Your task to perform on an android device: Open Amazon Image 0: 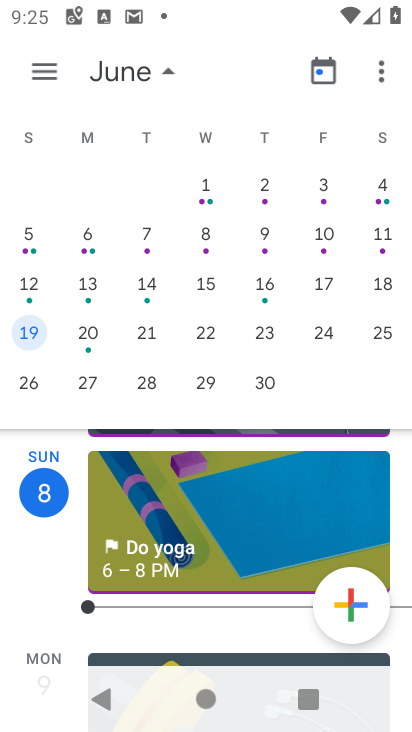
Step 0: press home button
Your task to perform on an android device: Open Amazon Image 1: 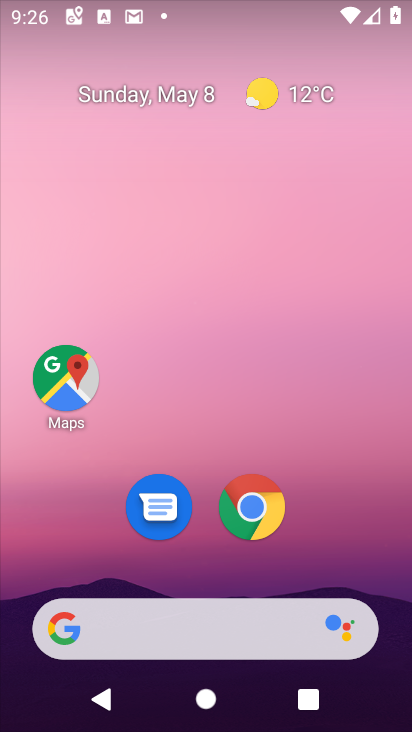
Step 1: click (282, 643)
Your task to perform on an android device: Open Amazon Image 2: 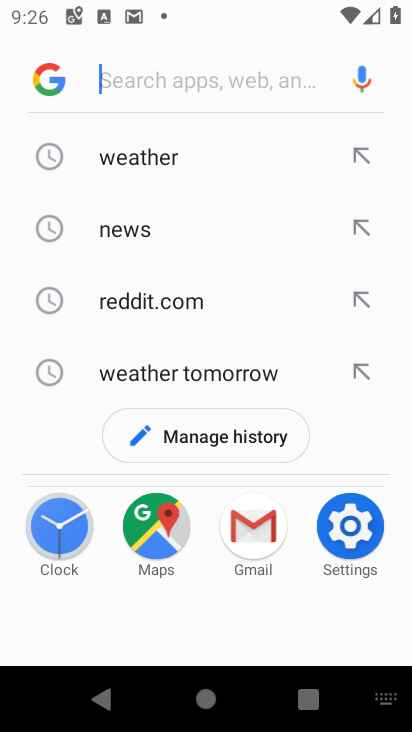
Step 2: type "amazon.com"
Your task to perform on an android device: Open Amazon Image 3: 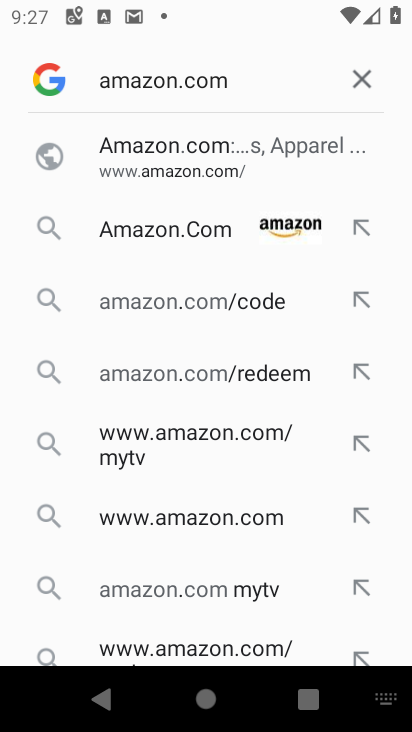
Step 3: click (208, 232)
Your task to perform on an android device: Open Amazon Image 4: 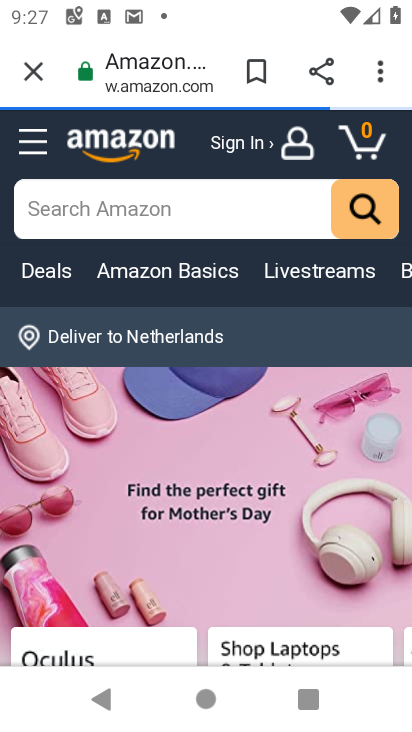
Step 4: task complete